Your task to perform on an android device: Open Chrome and go to the settings page Image 0: 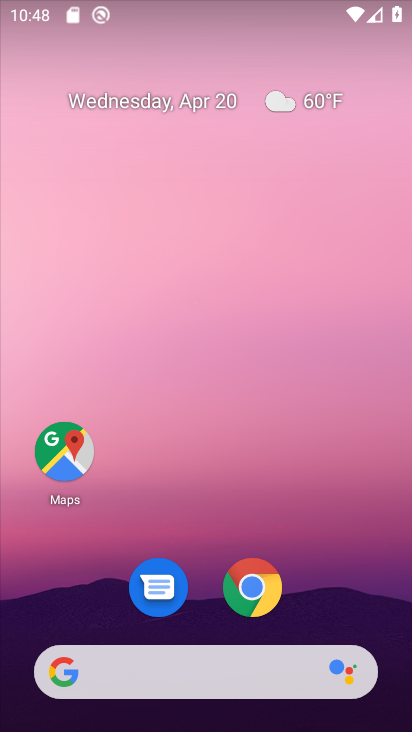
Step 0: click (247, 583)
Your task to perform on an android device: Open Chrome and go to the settings page Image 1: 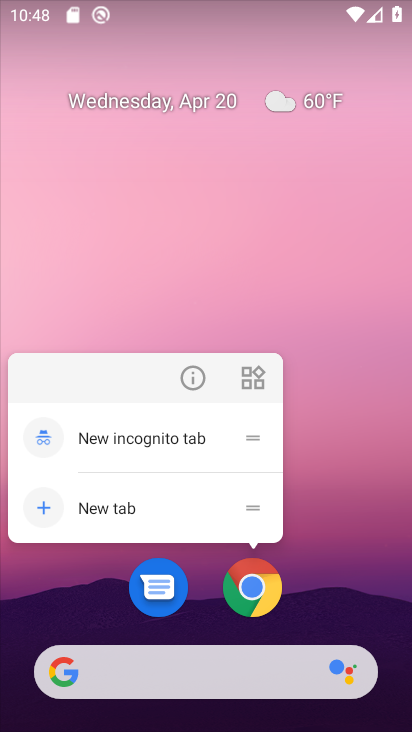
Step 1: click (317, 603)
Your task to perform on an android device: Open Chrome and go to the settings page Image 2: 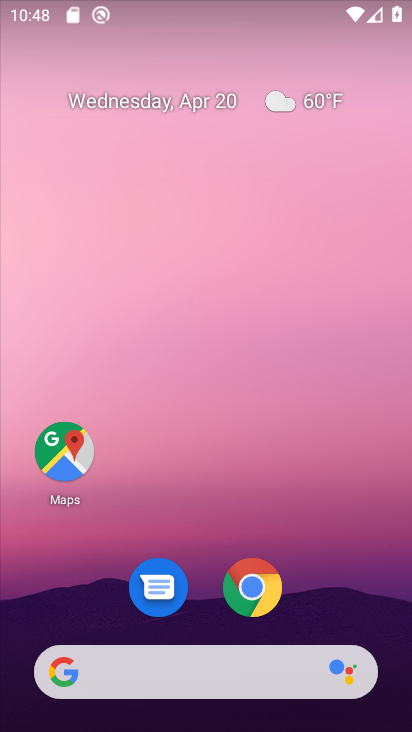
Step 2: drag from (325, 621) to (317, 80)
Your task to perform on an android device: Open Chrome and go to the settings page Image 3: 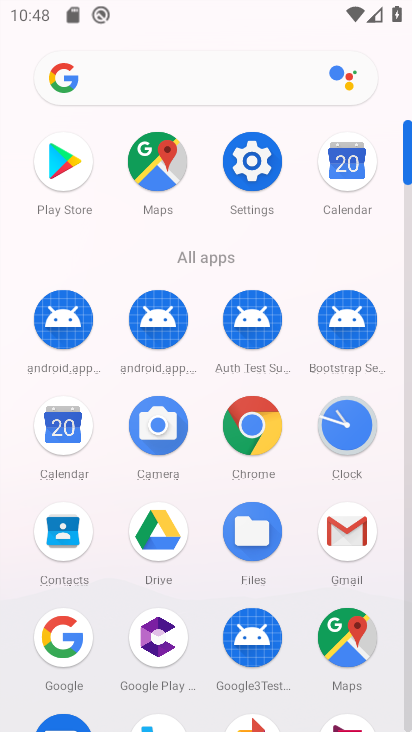
Step 3: click (251, 420)
Your task to perform on an android device: Open Chrome and go to the settings page Image 4: 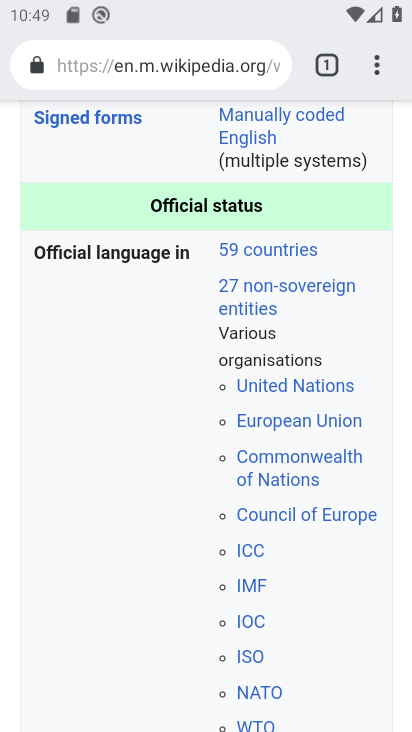
Step 4: click (369, 67)
Your task to perform on an android device: Open Chrome and go to the settings page Image 5: 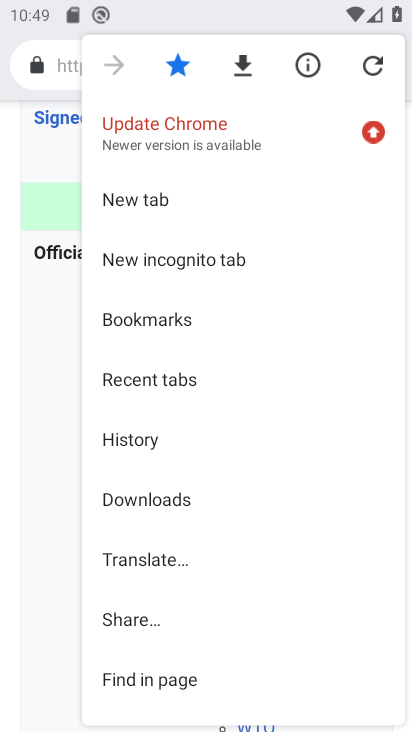
Step 5: drag from (207, 650) to (238, 133)
Your task to perform on an android device: Open Chrome and go to the settings page Image 6: 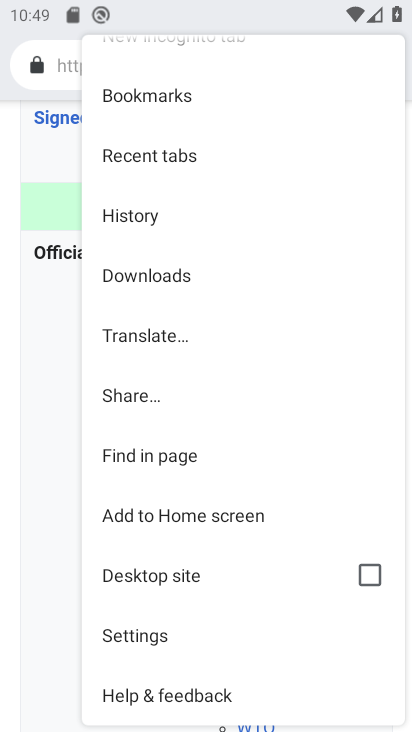
Step 6: click (173, 639)
Your task to perform on an android device: Open Chrome and go to the settings page Image 7: 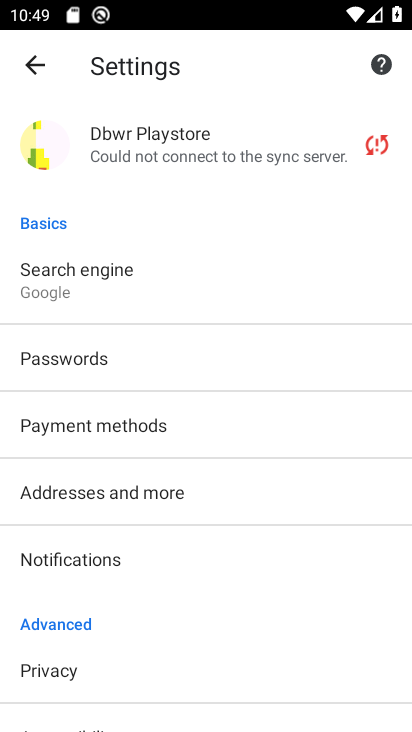
Step 7: task complete